Your task to perform on an android device: toggle pop-ups in chrome Image 0: 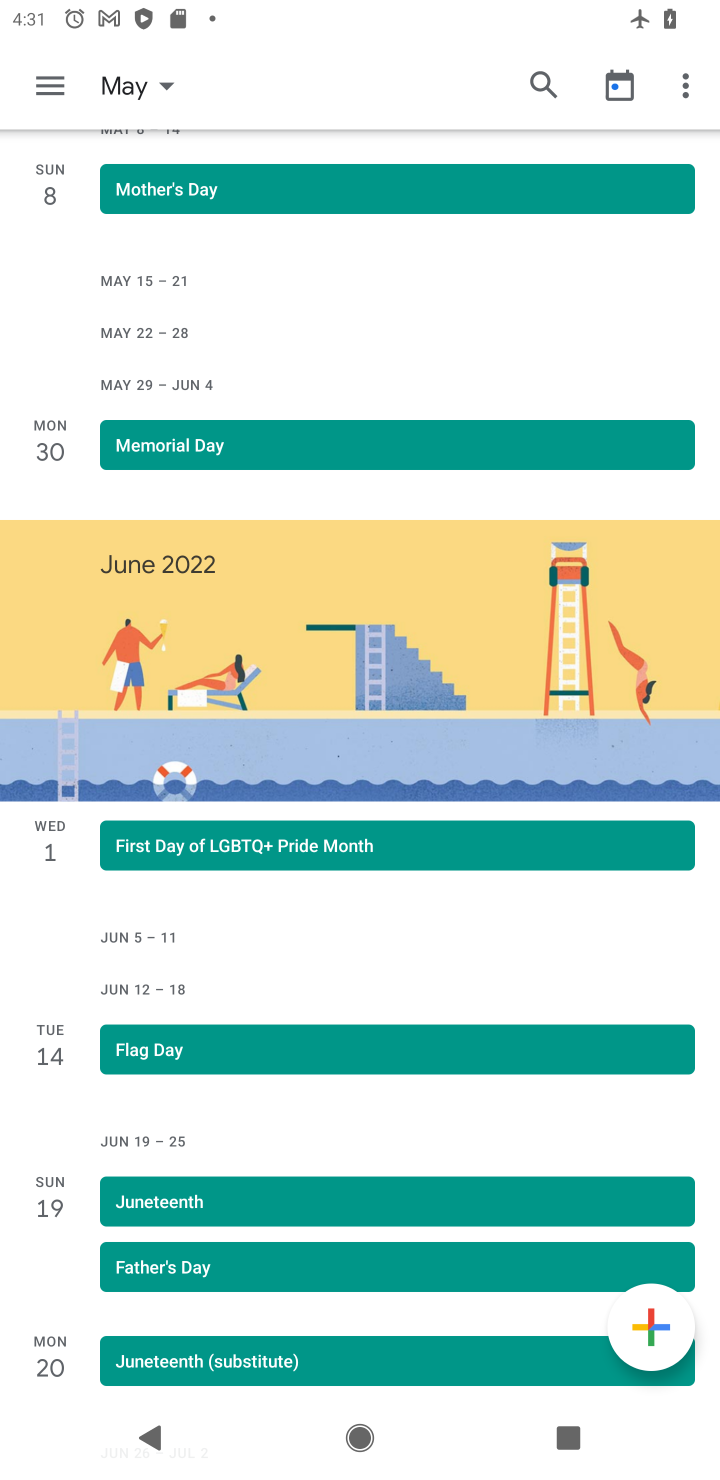
Step 0: press home button
Your task to perform on an android device: toggle pop-ups in chrome Image 1: 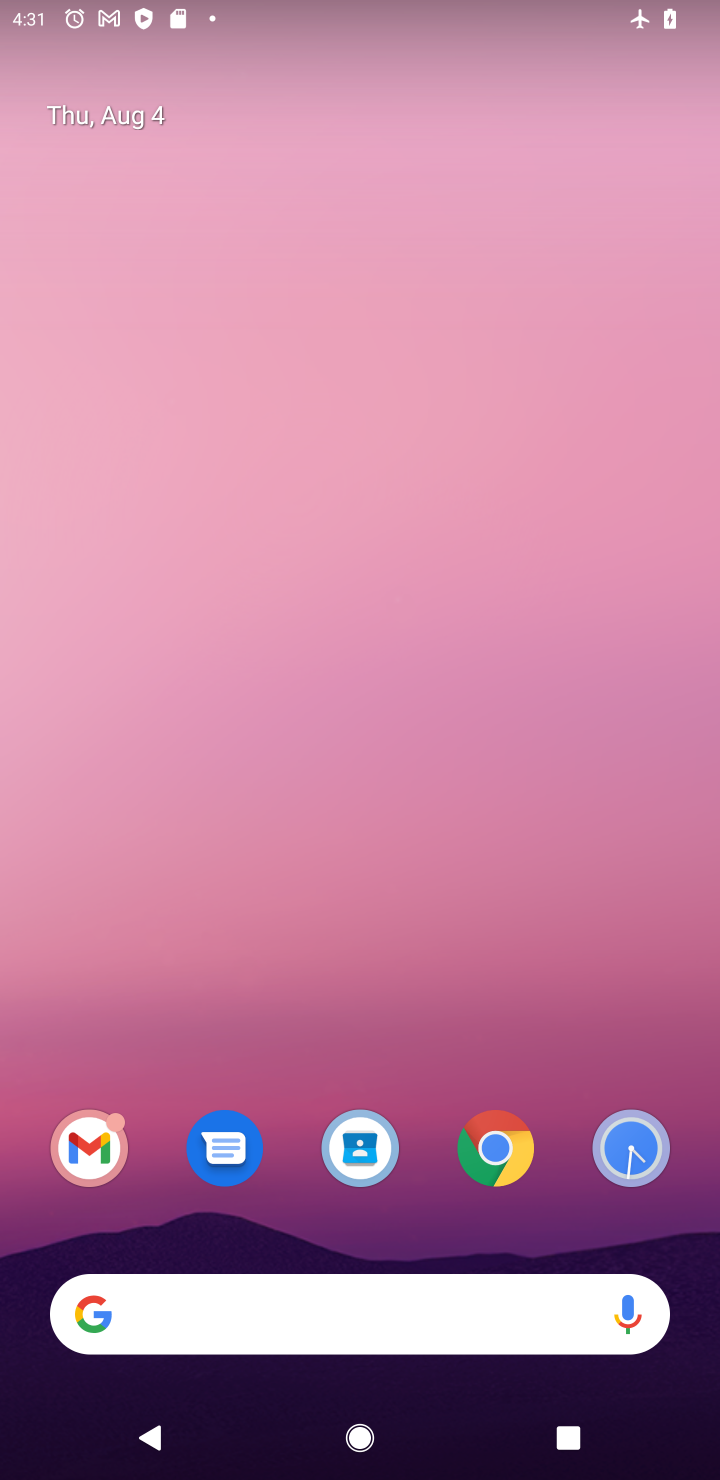
Step 1: click (492, 1144)
Your task to perform on an android device: toggle pop-ups in chrome Image 2: 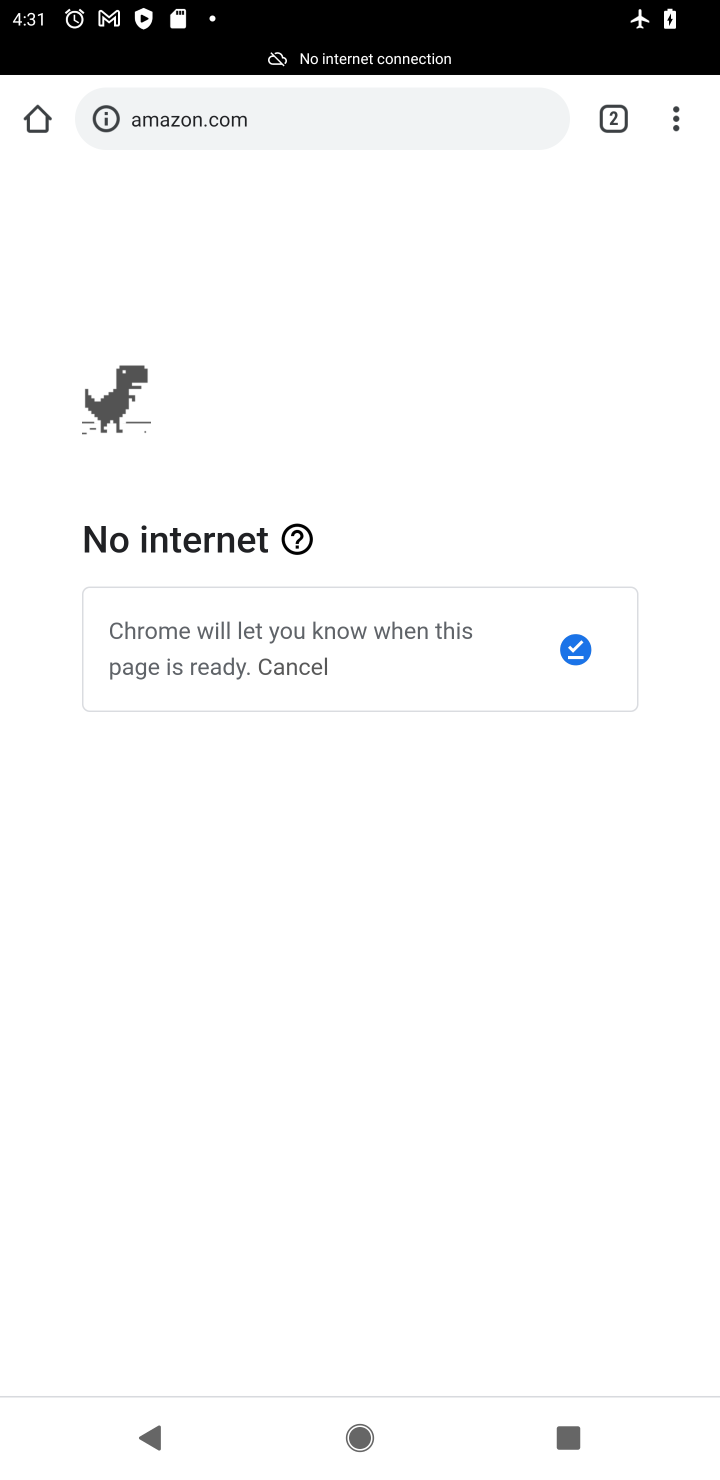
Step 2: click (670, 127)
Your task to perform on an android device: toggle pop-ups in chrome Image 3: 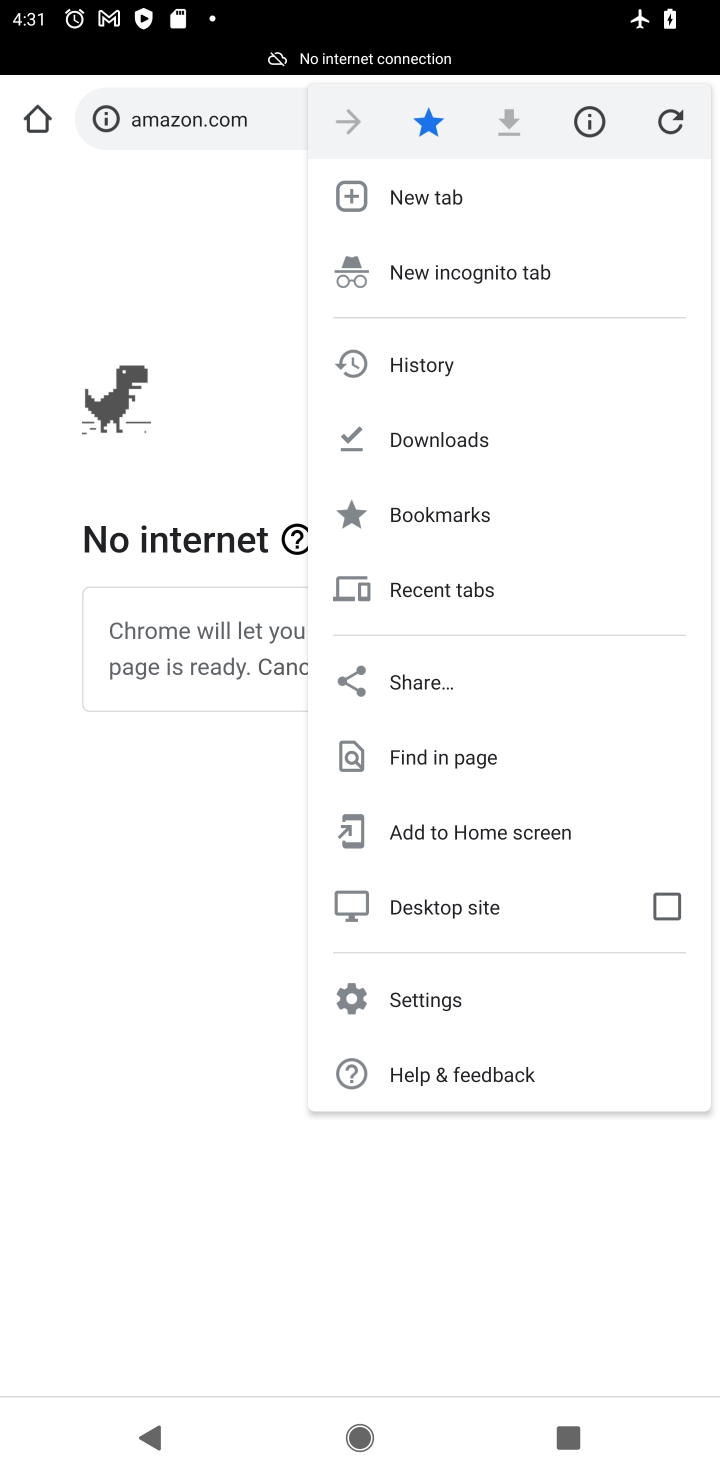
Step 3: click (427, 995)
Your task to perform on an android device: toggle pop-ups in chrome Image 4: 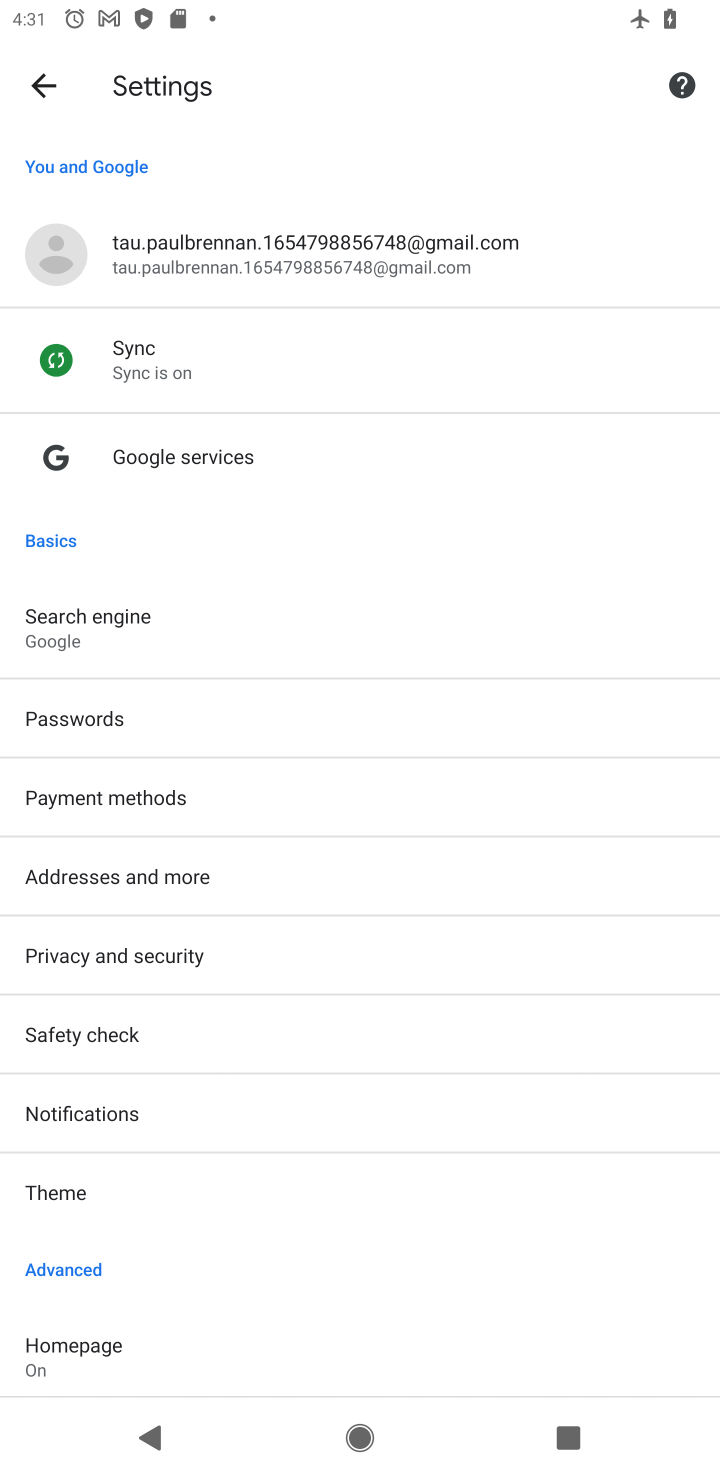
Step 4: drag from (332, 1268) to (327, 360)
Your task to perform on an android device: toggle pop-ups in chrome Image 5: 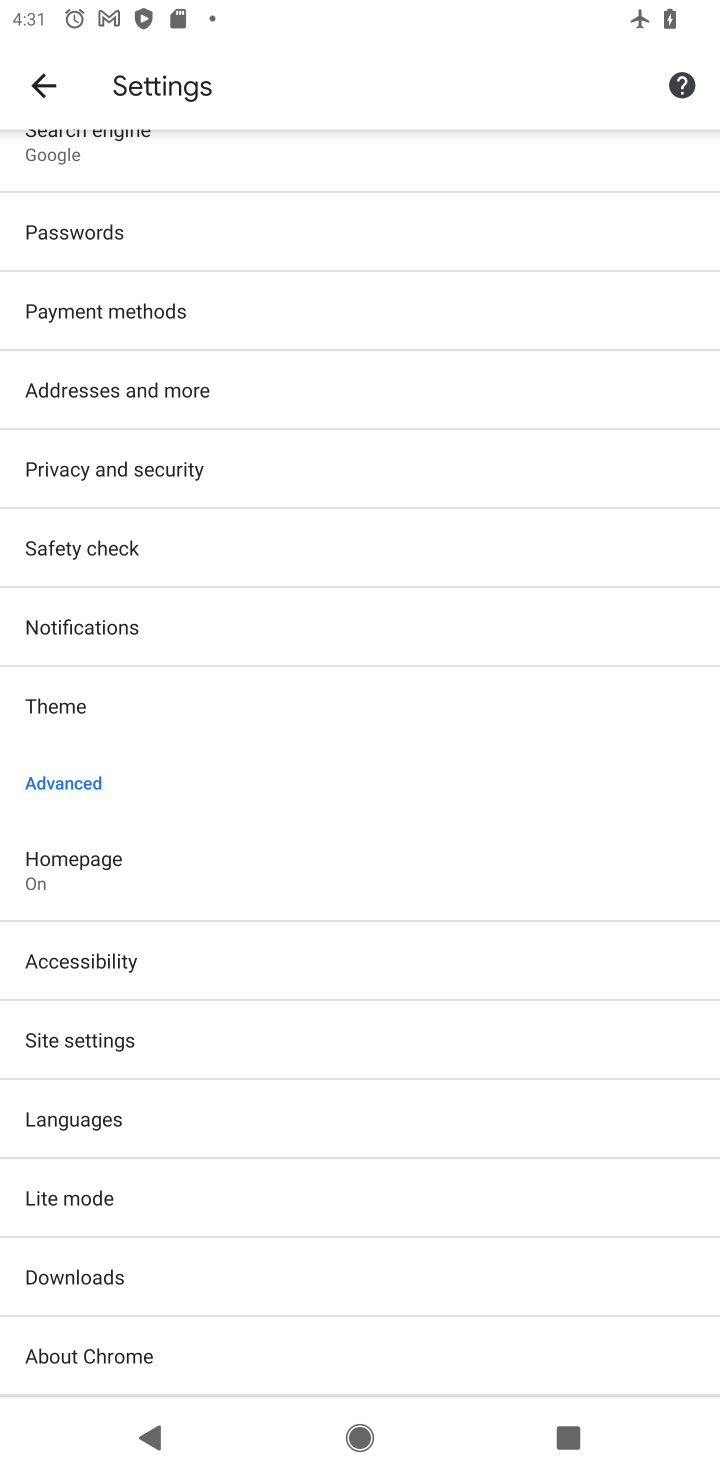
Step 5: click (97, 1040)
Your task to perform on an android device: toggle pop-ups in chrome Image 6: 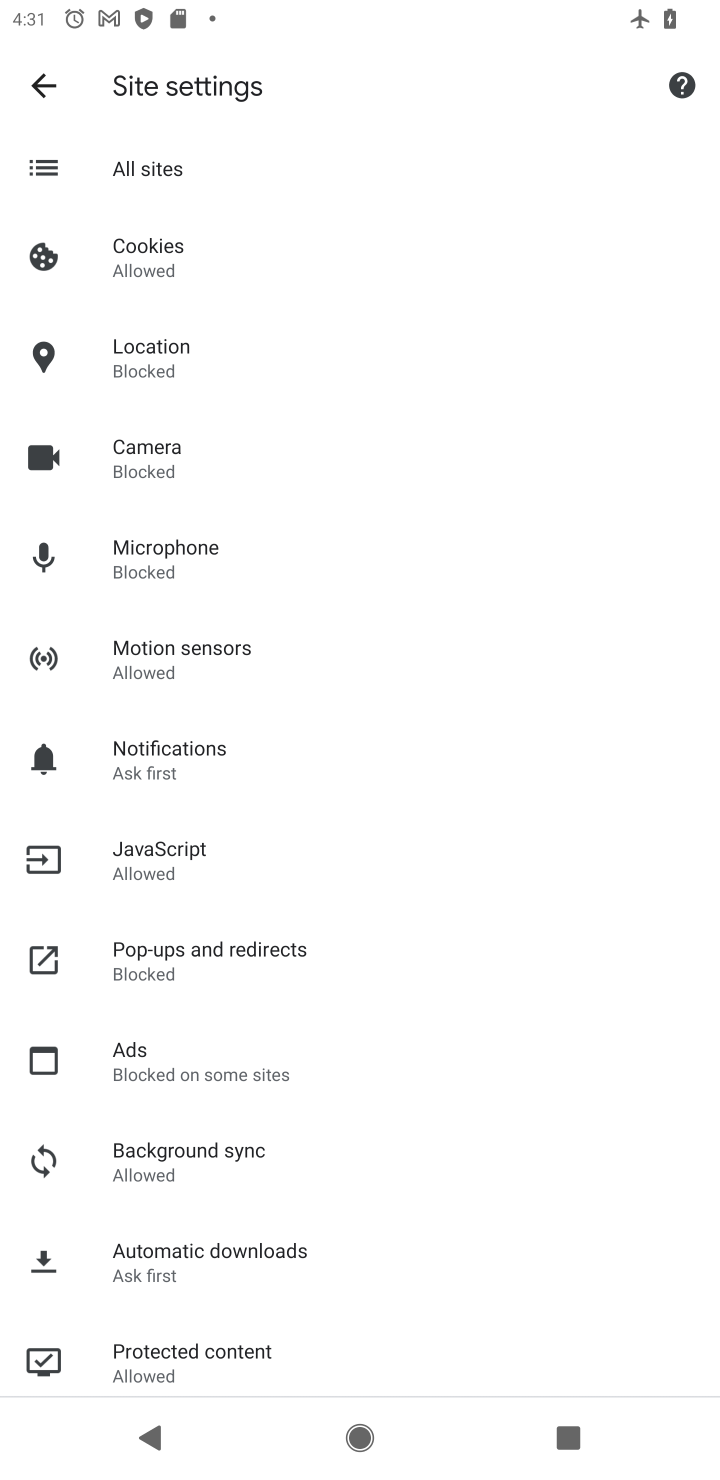
Step 6: click (157, 951)
Your task to perform on an android device: toggle pop-ups in chrome Image 7: 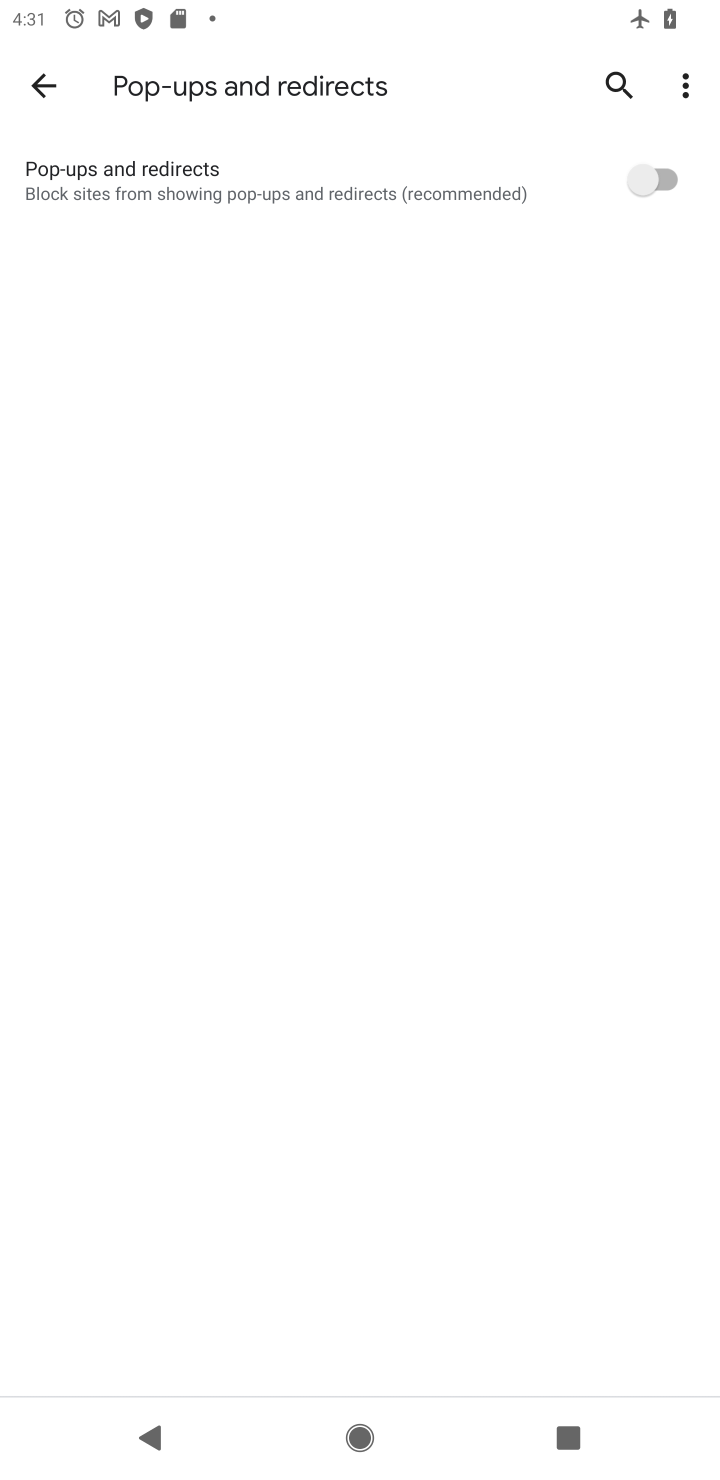
Step 7: click (671, 183)
Your task to perform on an android device: toggle pop-ups in chrome Image 8: 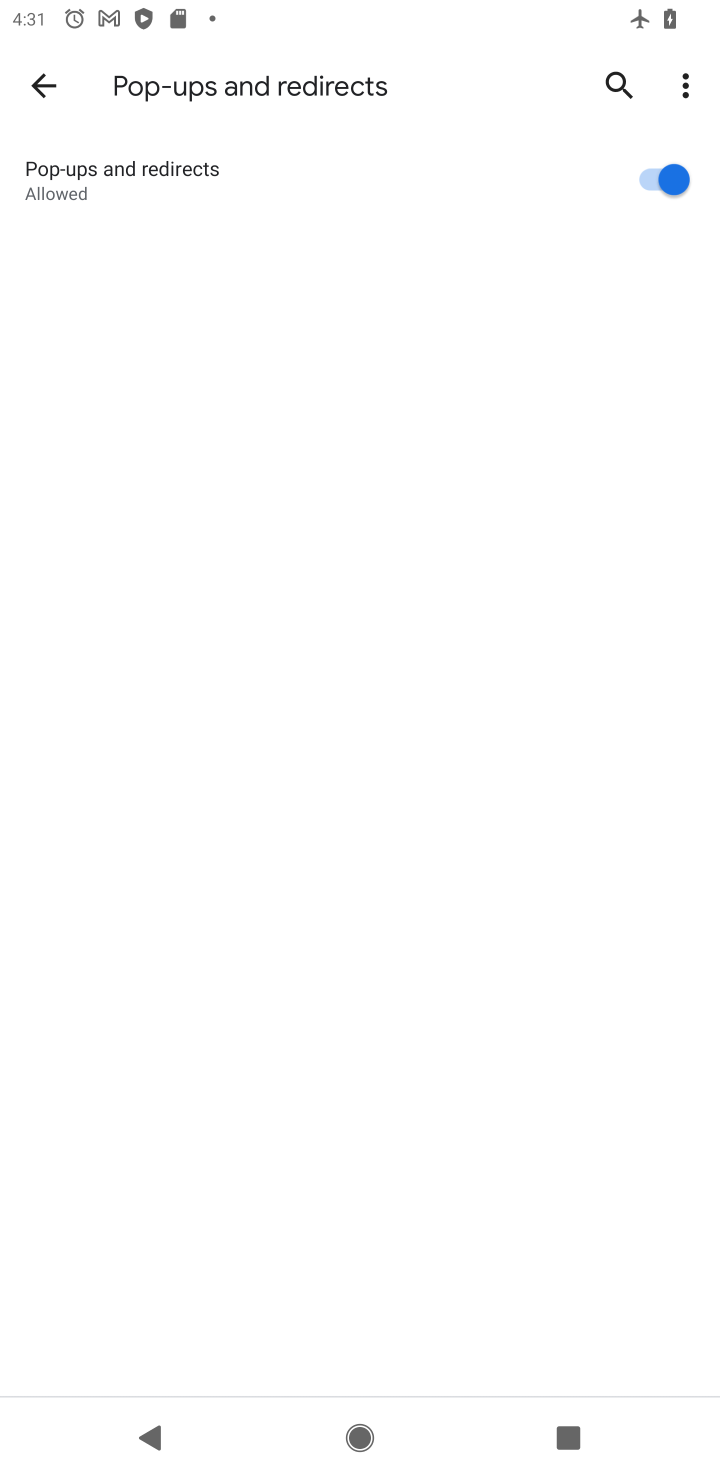
Step 8: task complete